Your task to perform on an android device: Open display settings Image 0: 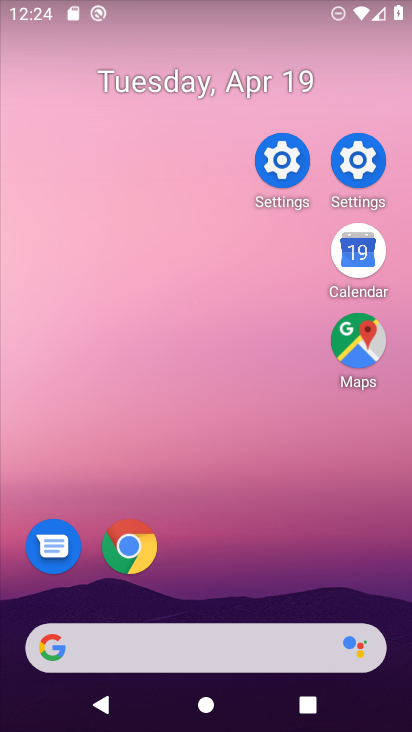
Step 0: drag from (273, 641) to (194, 170)
Your task to perform on an android device: Open display settings Image 1: 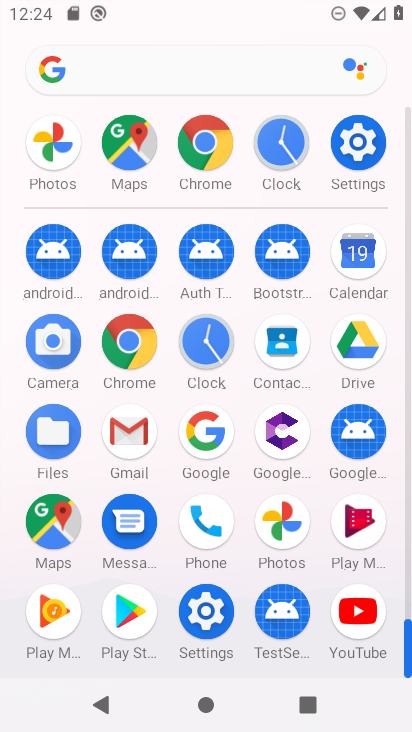
Step 1: click (350, 142)
Your task to perform on an android device: Open display settings Image 2: 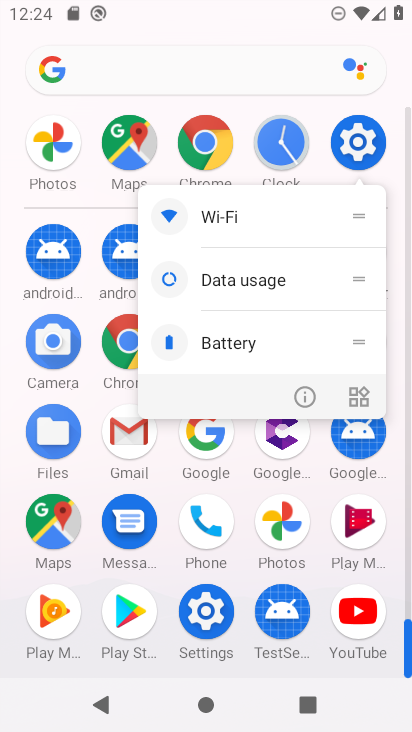
Step 2: click (350, 154)
Your task to perform on an android device: Open display settings Image 3: 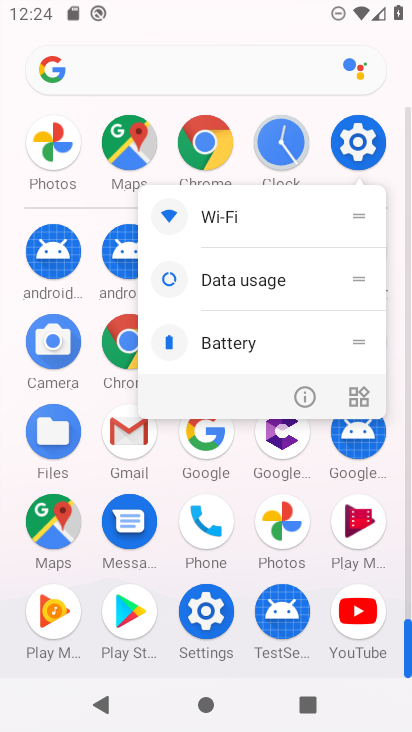
Step 3: click (350, 154)
Your task to perform on an android device: Open display settings Image 4: 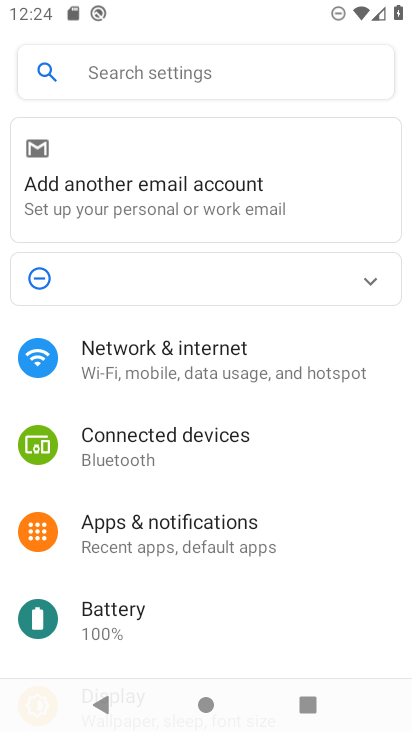
Step 4: drag from (165, 503) to (140, 270)
Your task to perform on an android device: Open display settings Image 5: 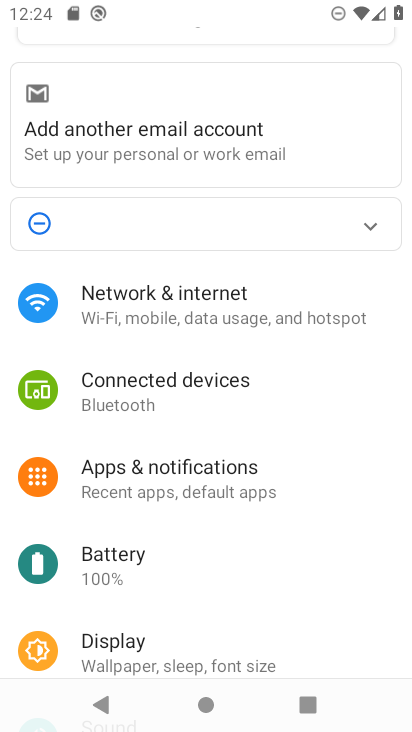
Step 5: drag from (179, 605) to (283, 114)
Your task to perform on an android device: Open display settings Image 6: 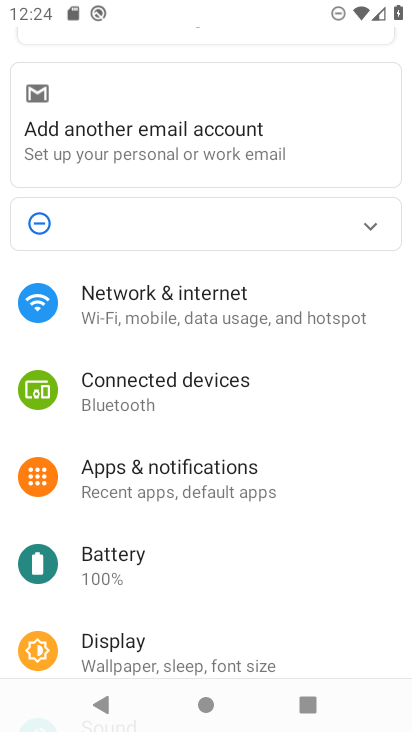
Step 6: click (125, 647)
Your task to perform on an android device: Open display settings Image 7: 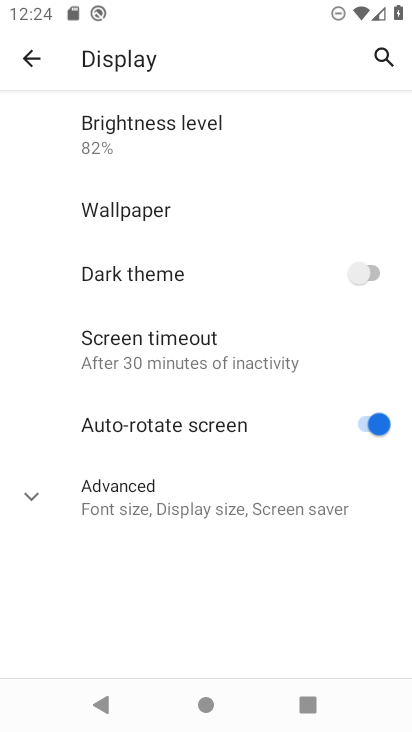
Step 7: task complete